Your task to perform on an android device: turn off improve location accuracy Image 0: 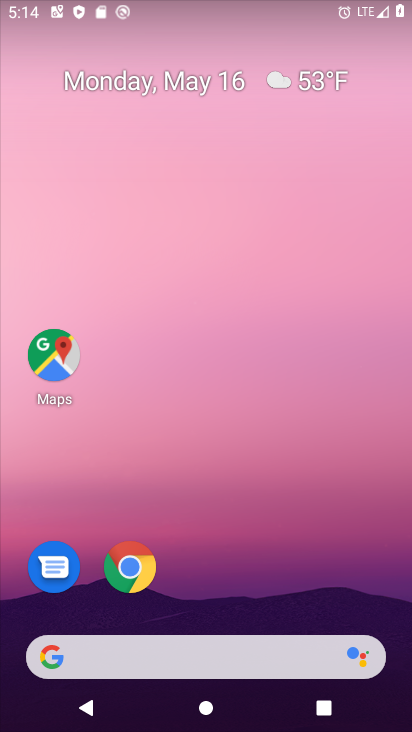
Step 0: drag from (339, 671) to (411, 24)
Your task to perform on an android device: turn off improve location accuracy Image 1: 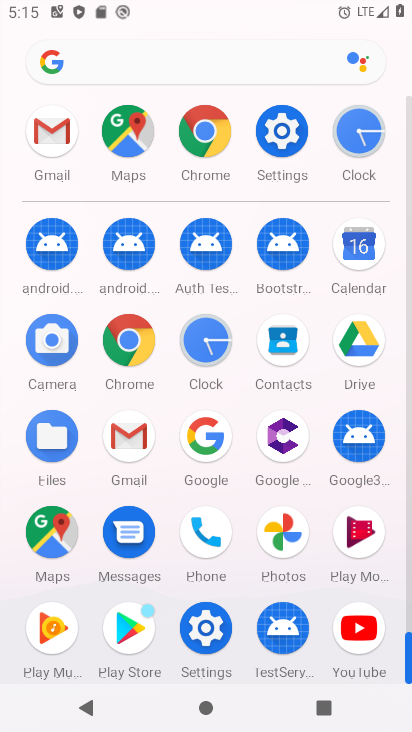
Step 1: click (279, 136)
Your task to perform on an android device: turn off improve location accuracy Image 2: 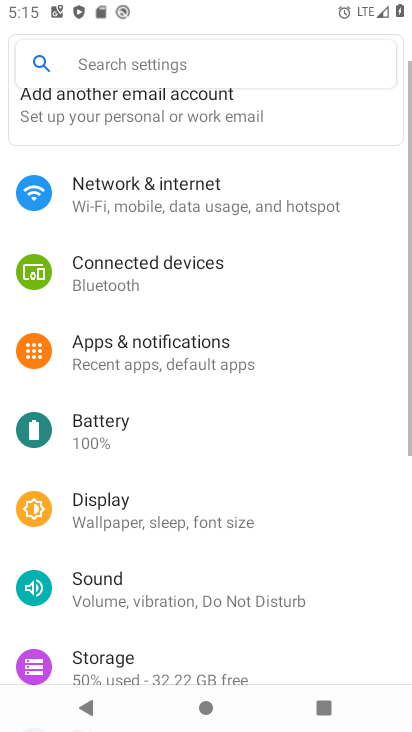
Step 2: drag from (212, 597) to (246, 306)
Your task to perform on an android device: turn off improve location accuracy Image 3: 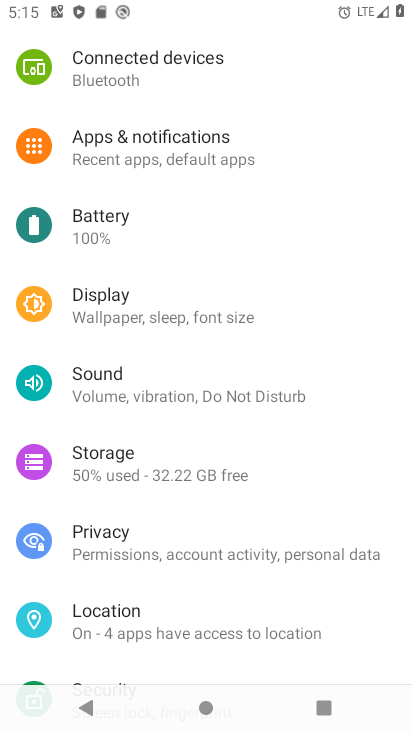
Step 3: click (183, 610)
Your task to perform on an android device: turn off improve location accuracy Image 4: 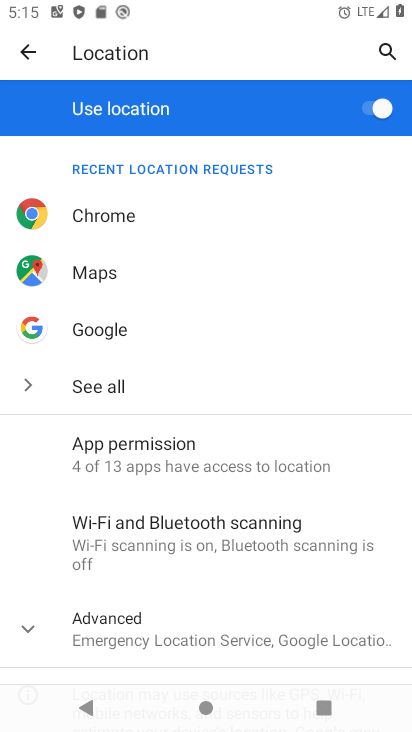
Step 4: drag from (228, 566) to (214, 47)
Your task to perform on an android device: turn off improve location accuracy Image 5: 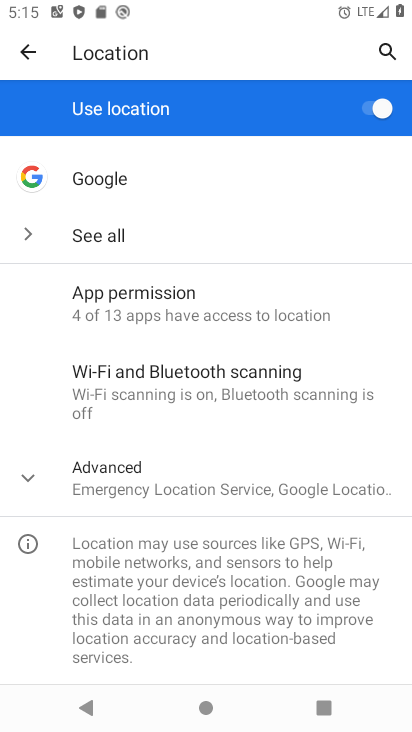
Step 5: click (196, 467)
Your task to perform on an android device: turn off improve location accuracy Image 6: 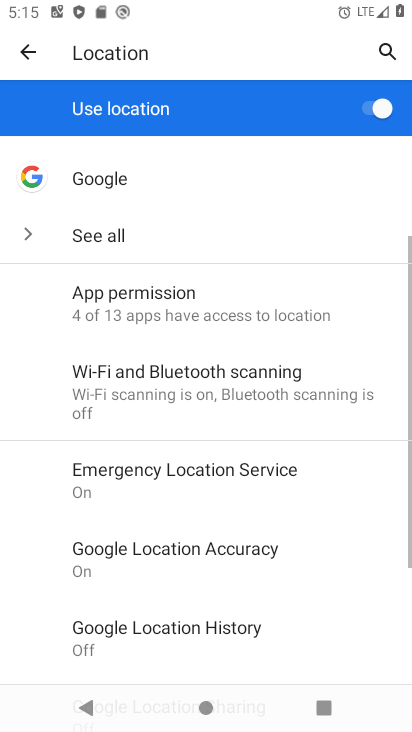
Step 6: drag from (274, 652) to (283, 360)
Your task to perform on an android device: turn off improve location accuracy Image 7: 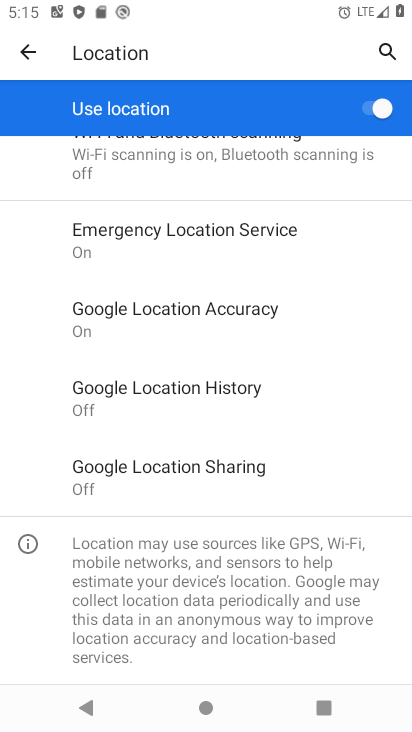
Step 7: click (174, 305)
Your task to perform on an android device: turn off improve location accuracy Image 8: 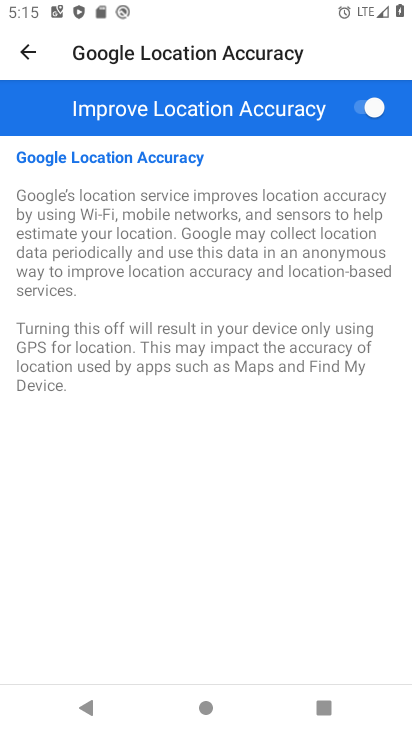
Step 8: click (367, 109)
Your task to perform on an android device: turn off improve location accuracy Image 9: 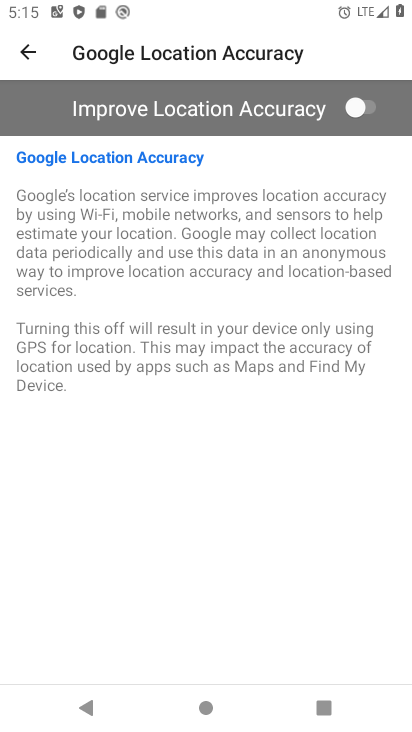
Step 9: task complete